Your task to perform on an android device: Show me recent news Image 0: 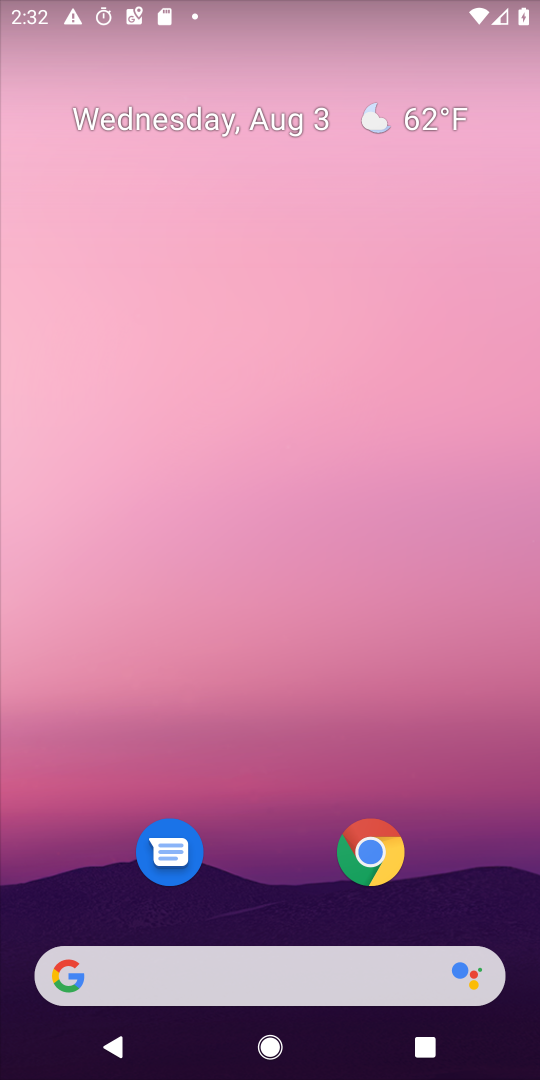
Step 0: drag from (426, 745) to (195, 54)
Your task to perform on an android device: Show me recent news Image 1: 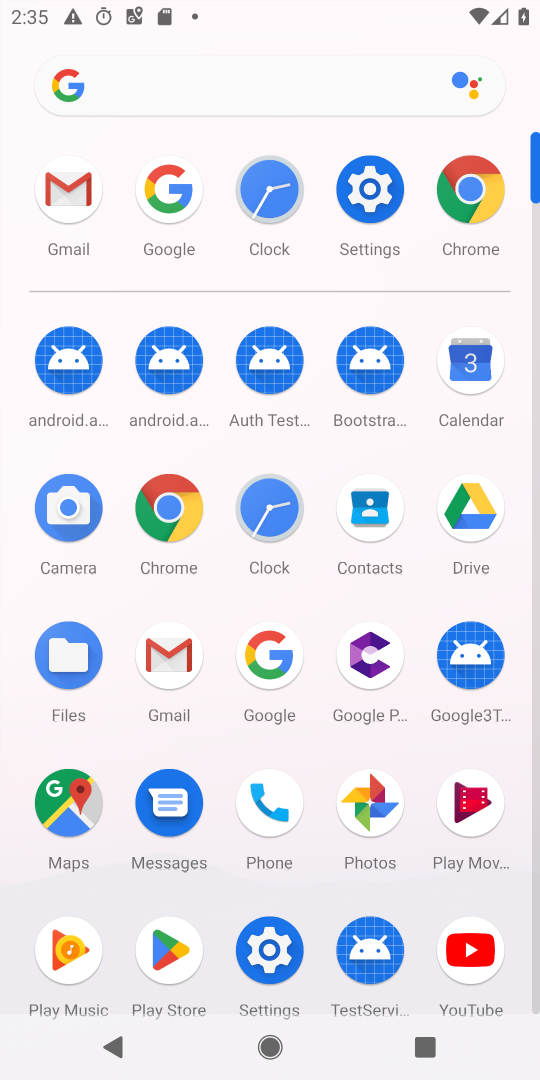
Step 1: click (263, 638)
Your task to perform on an android device: Show me recent news Image 2: 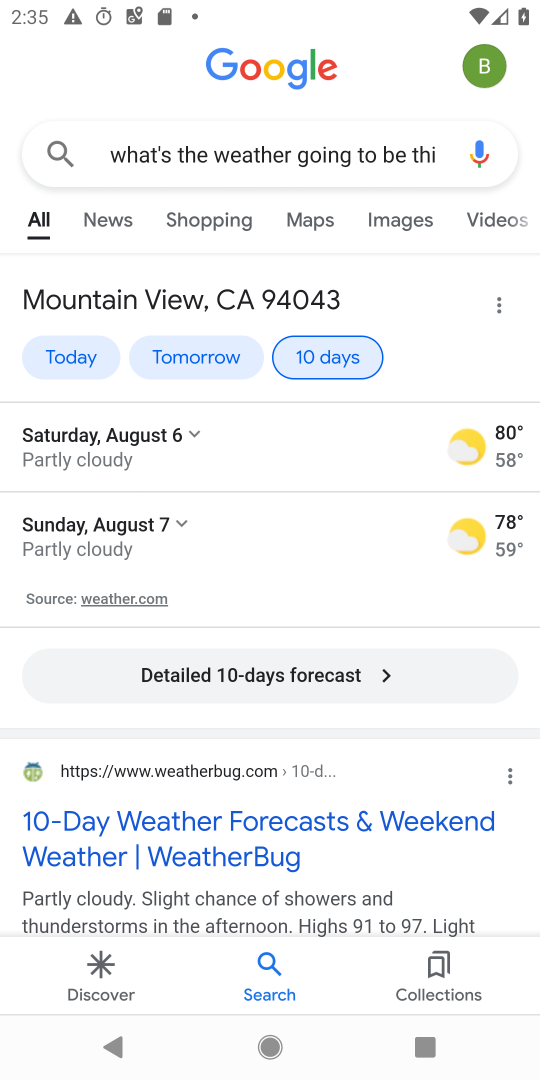
Step 2: press back button
Your task to perform on an android device: Show me recent news Image 3: 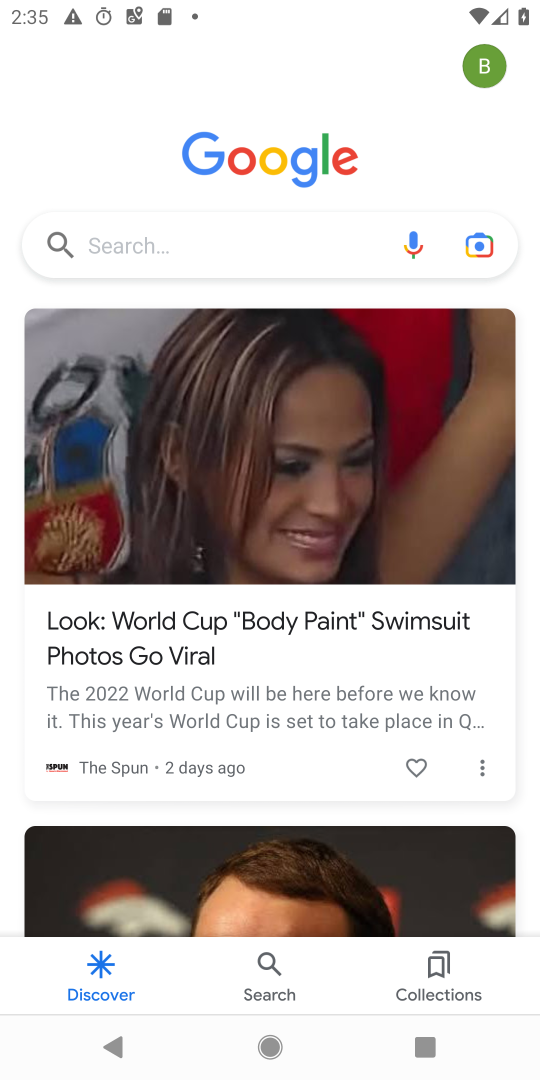
Step 3: click (137, 245)
Your task to perform on an android device: Show me recent news Image 4: 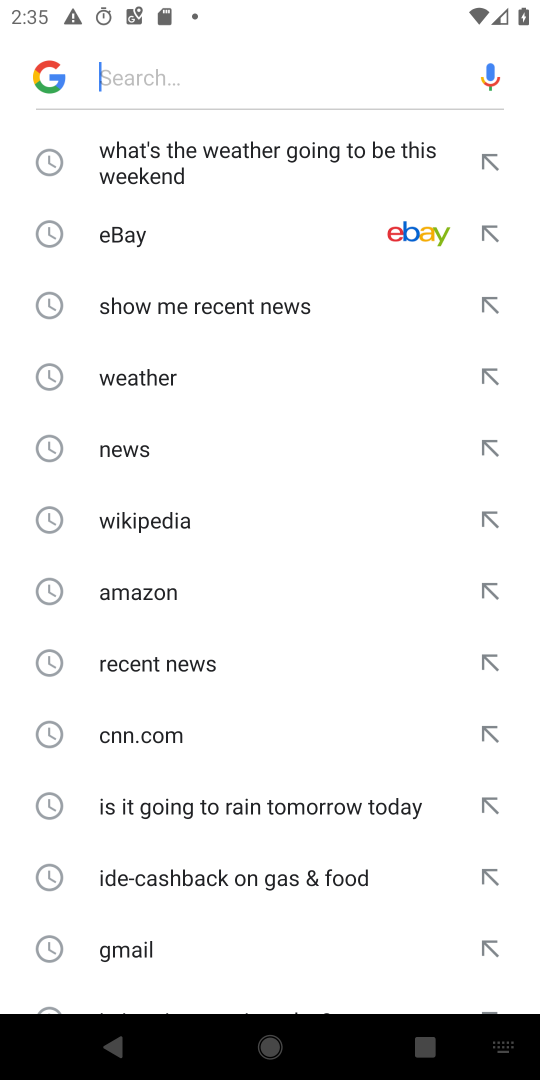
Step 4: click (167, 312)
Your task to perform on an android device: Show me recent news Image 5: 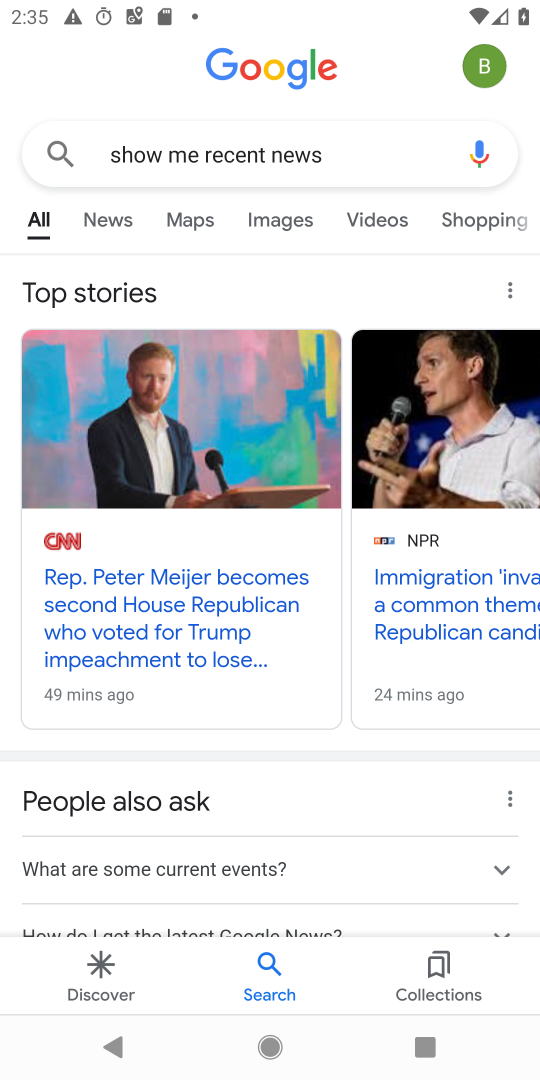
Step 5: task complete